Your task to perform on an android device: refresh tabs in the chrome app Image 0: 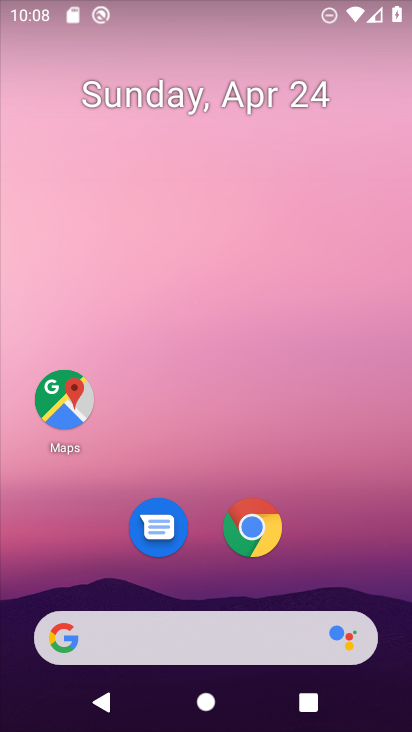
Step 0: click (248, 524)
Your task to perform on an android device: refresh tabs in the chrome app Image 1: 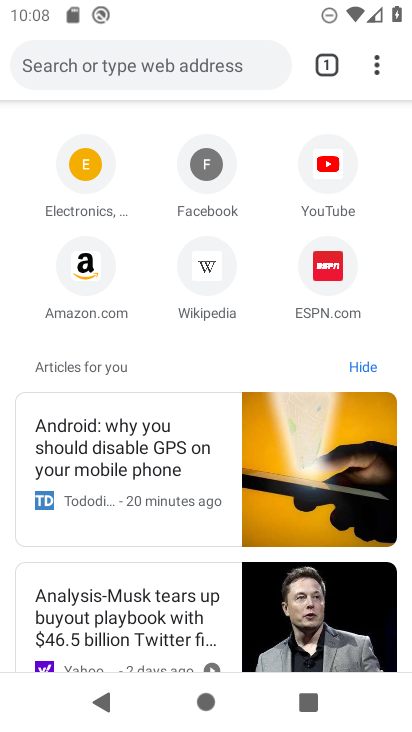
Step 1: click (376, 62)
Your task to perform on an android device: refresh tabs in the chrome app Image 2: 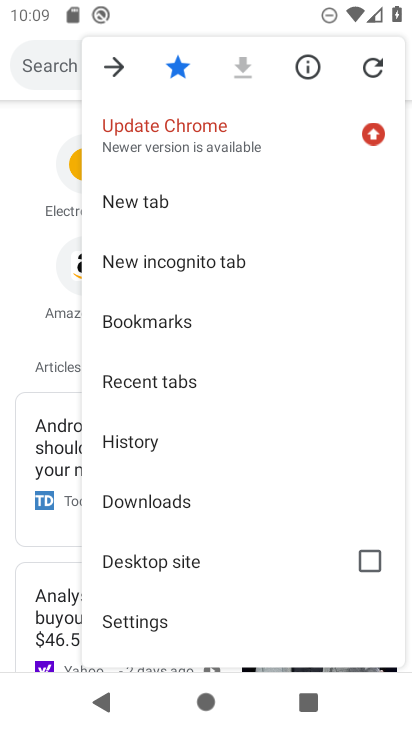
Step 2: click (373, 63)
Your task to perform on an android device: refresh tabs in the chrome app Image 3: 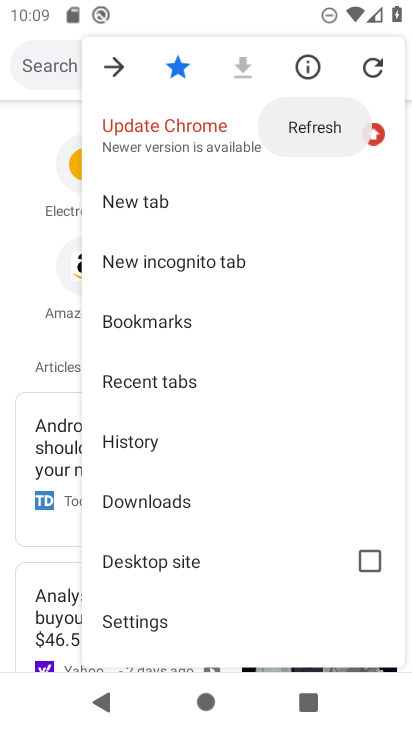
Step 3: click (373, 63)
Your task to perform on an android device: refresh tabs in the chrome app Image 4: 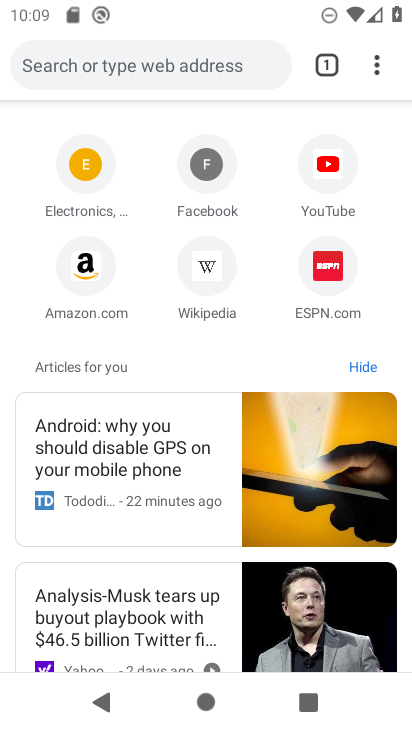
Step 4: task complete